Your task to perform on an android device: open app "Move to iOS" (install if not already installed) and go to login screen Image 0: 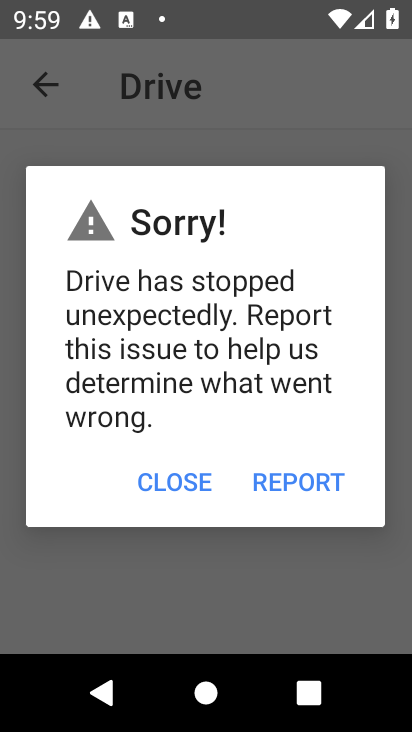
Step 0: drag from (128, 565) to (254, 116)
Your task to perform on an android device: open app "Move to iOS" (install if not already installed) and go to login screen Image 1: 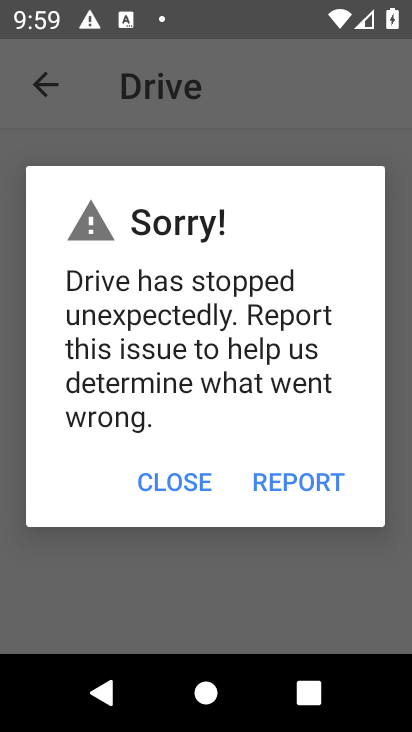
Step 1: press home button
Your task to perform on an android device: open app "Move to iOS" (install if not already installed) and go to login screen Image 2: 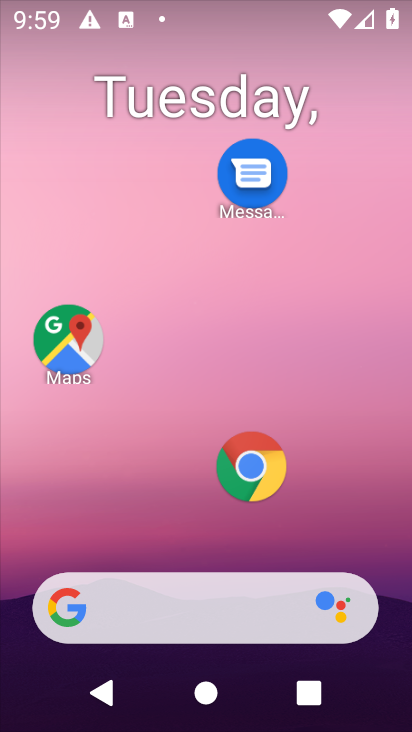
Step 2: drag from (131, 516) to (193, 15)
Your task to perform on an android device: open app "Move to iOS" (install if not already installed) and go to login screen Image 3: 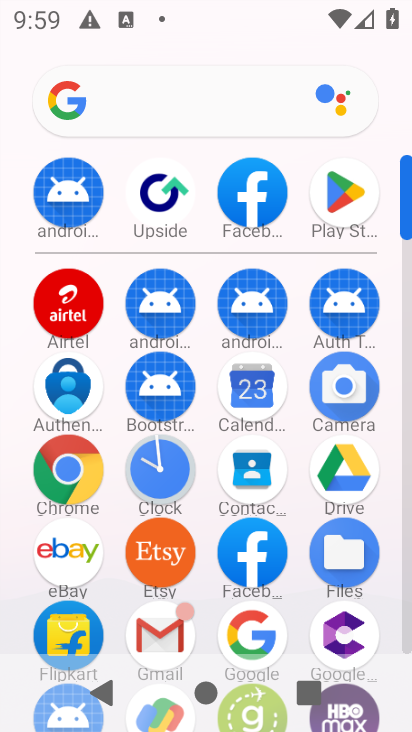
Step 3: click (320, 189)
Your task to perform on an android device: open app "Move to iOS" (install if not already installed) and go to login screen Image 4: 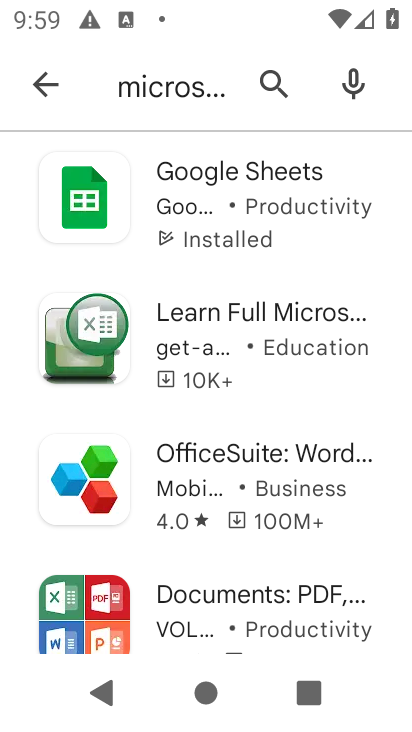
Step 4: click (272, 77)
Your task to perform on an android device: open app "Move to iOS" (install if not already installed) and go to login screen Image 5: 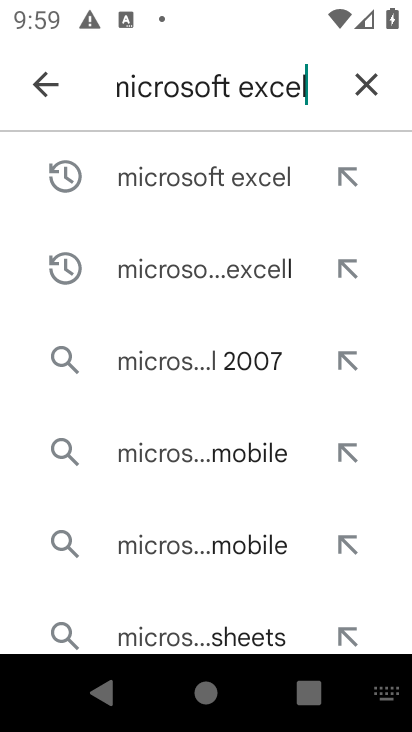
Step 5: click (381, 84)
Your task to perform on an android device: open app "Move to iOS" (install if not already installed) and go to login screen Image 6: 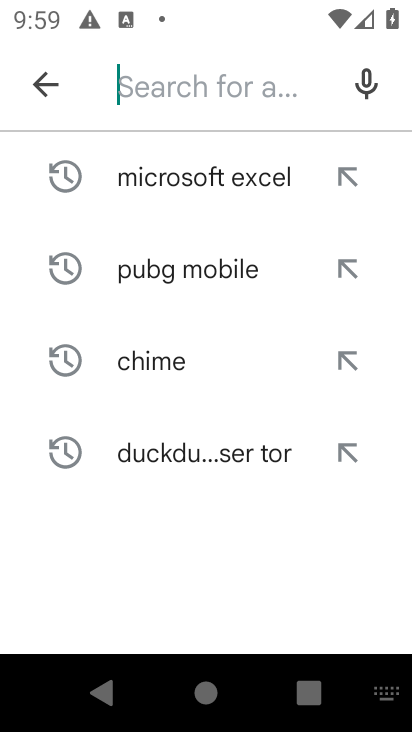
Step 6: click (165, 72)
Your task to perform on an android device: open app "Move to iOS" (install if not already installed) and go to login screen Image 7: 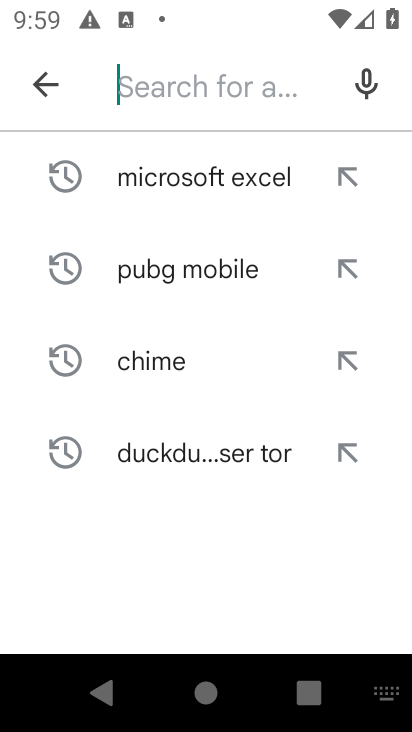
Step 7: type "Move to iOS"
Your task to perform on an android device: open app "Move to iOS" (install if not already installed) and go to login screen Image 8: 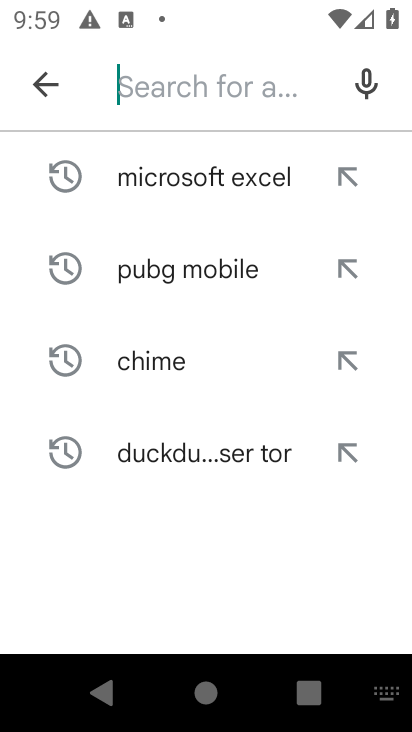
Step 8: click (173, 562)
Your task to perform on an android device: open app "Move to iOS" (install if not already installed) and go to login screen Image 9: 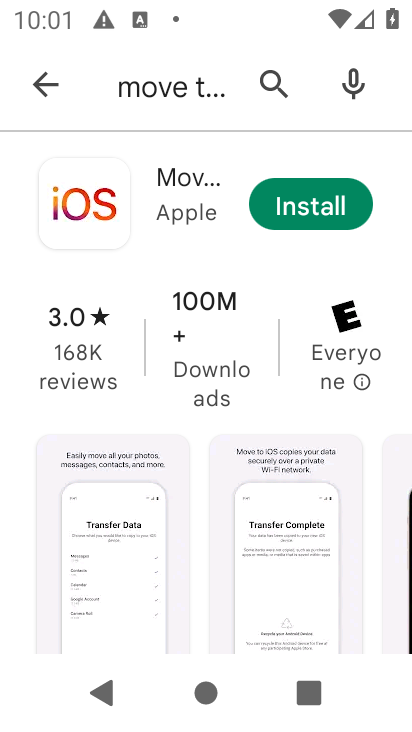
Step 9: click (278, 202)
Your task to perform on an android device: open app "Move to iOS" (install if not already installed) and go to login screen Image 10: 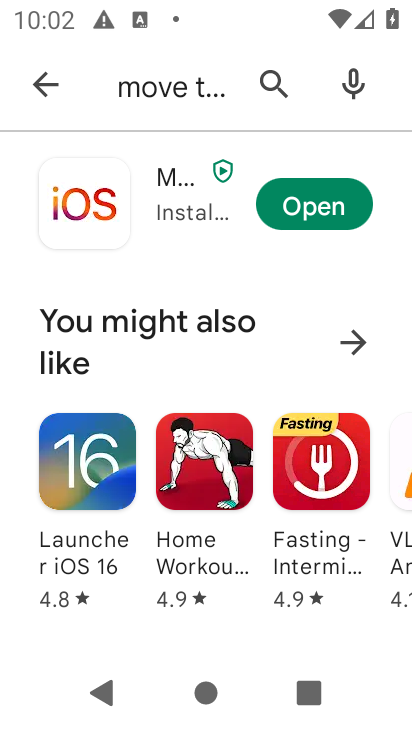
Step 10: click (346, 185)
Your task to perform on an android device: open app "Move to iOS" (install if not already installed) and go to login screen Image 11: 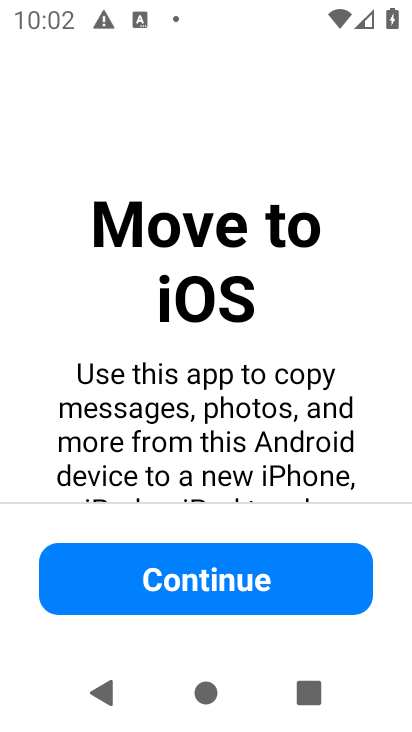
Step 11: click (214, 597)
Your task to perform on an android device: open app "Move to iOS" (install if not already installed) and go to login screen Image 12: 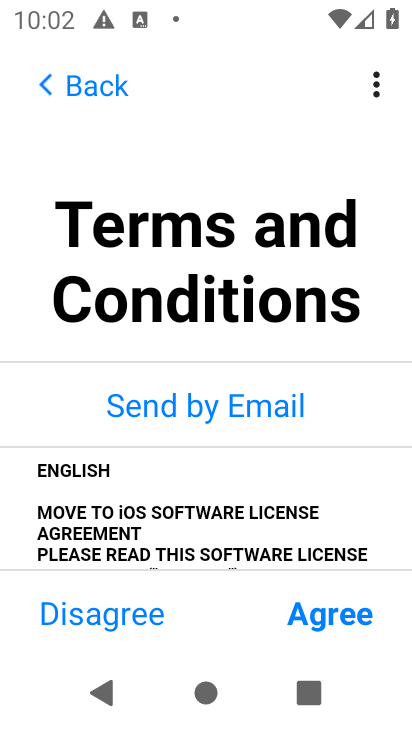
Step 12: drag from (232, 498) to (275, 74)
Your task to perform on an android device: open app "Move to iOS" (install if not already installed) and go to login screen Image 13: 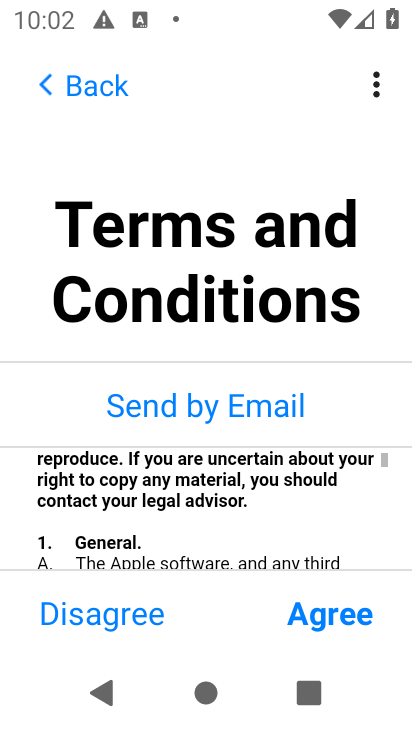
Step 13: click (325, 627)
Your task to perform on an android device: open app "Move to iOS" (install if not already installed) and go to login screen Image 14: 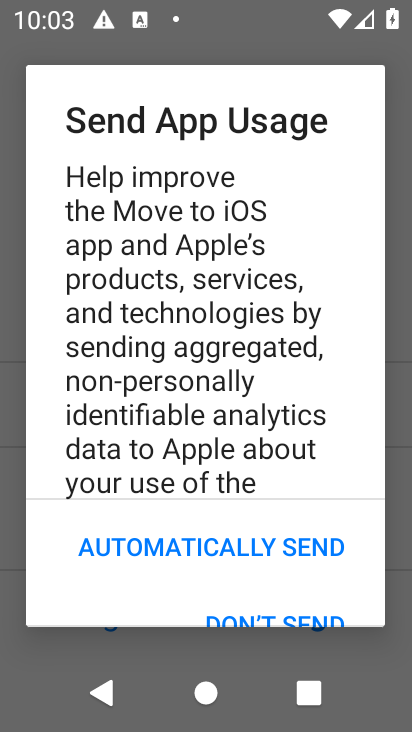
Step 14: drag from (163, 527) to (220, 196)
Your task to perform on an android device: open app "Move to iOS" (install if not already installed) and go to login screen Image 15: 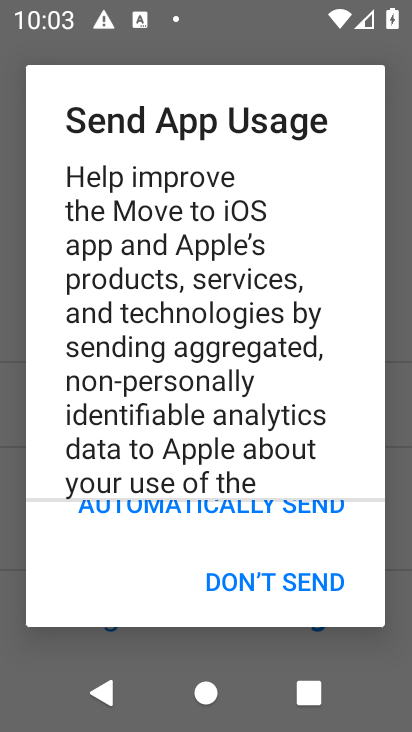
Step 15: press home button
Your task to perform on an android device: open app "Move to iOS" (install if not already installed) and go to login screen Image 16: 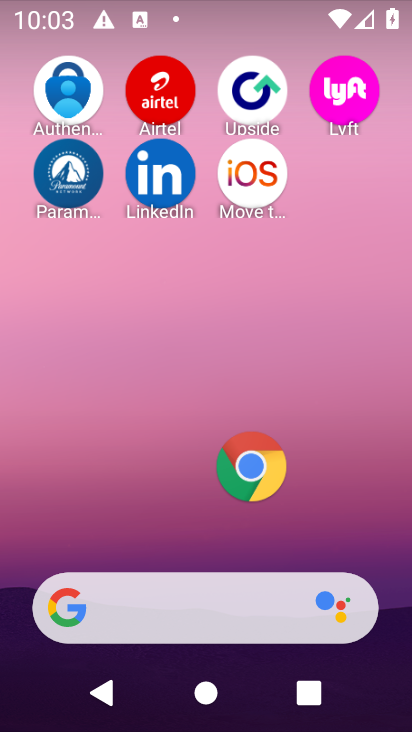
Step 16: click (264, 175)
Your task to perform on an android device: open app "Move to iOS" (install if not already installed) and go to login screen Image 17: 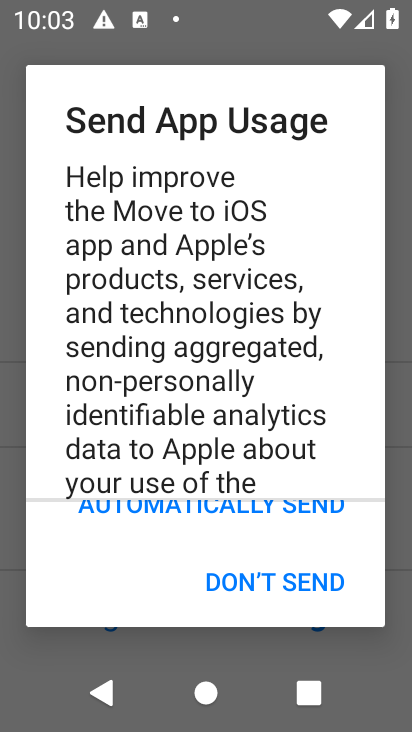
Step 17: task complete